Your task to perform on an android device: What is the recent news? Image 0: 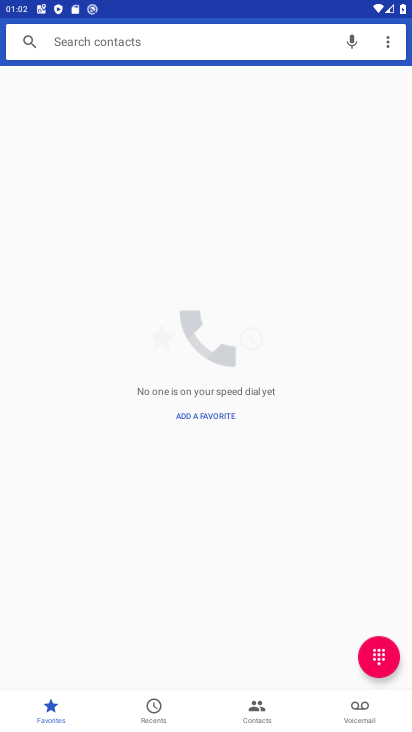
Step 0: press home button
Your task to perform on an android device: What is the recent news? Image 1: 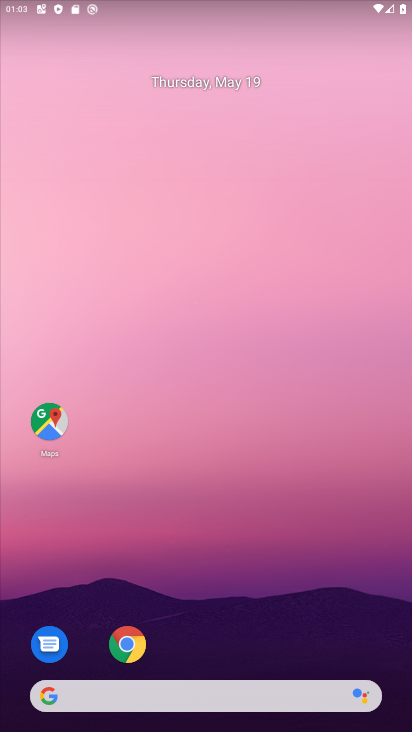
Step 1: drag from (292, 612) to (315, 233)
Your task to perform on an android device: What is the recent news? Image 2: 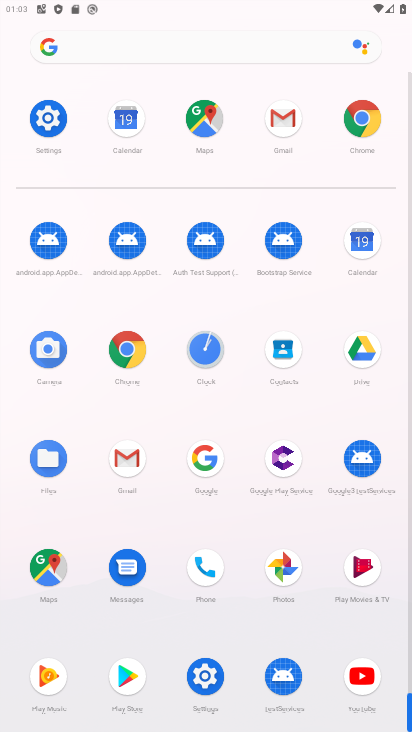
Step 2: click (127, 356)
Your task to perform on an android device: What is the recent news? Image 3: 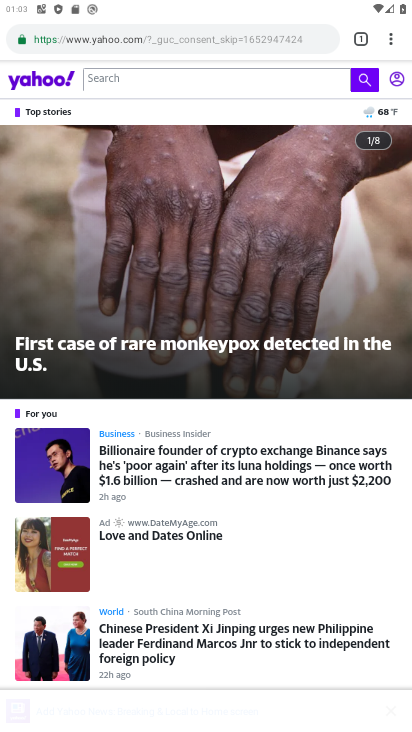
Step 3: click (247, 39)
Your task to perform on an android device: What is the recent news? Image 4: 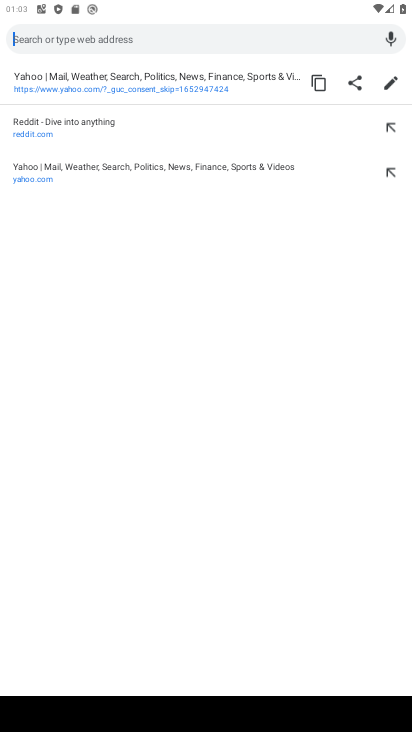
Step 4: type "what is the recent news"
Your task to perform on an android device: What is the recent news? Image 5: 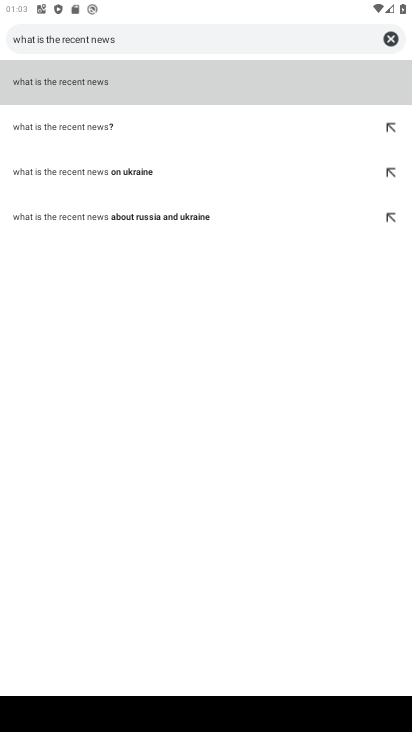
Step 5: click (142, 80)
Your task to perform on an android device: What is the recent news? Image 6: 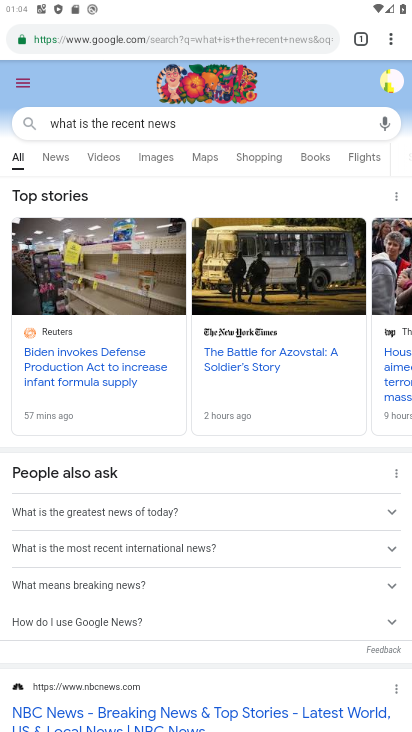
Step 6: task complete